Your task to perform on an android device: turn pop-ups on in chrome Image 0: 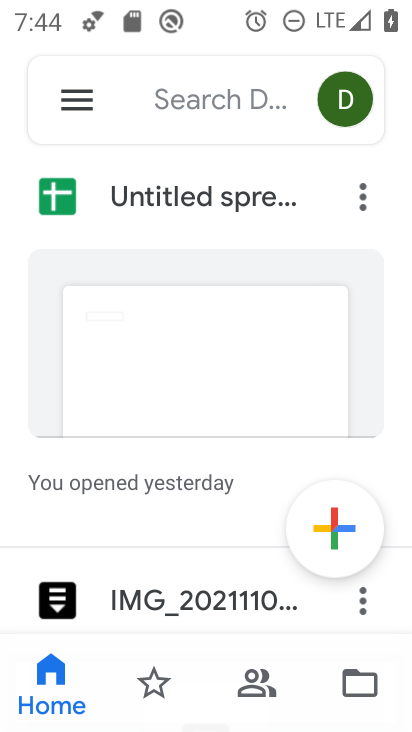
Step 0: press home button
Your task to perform on an android device: turn pop-ups on in chrome Image 1: 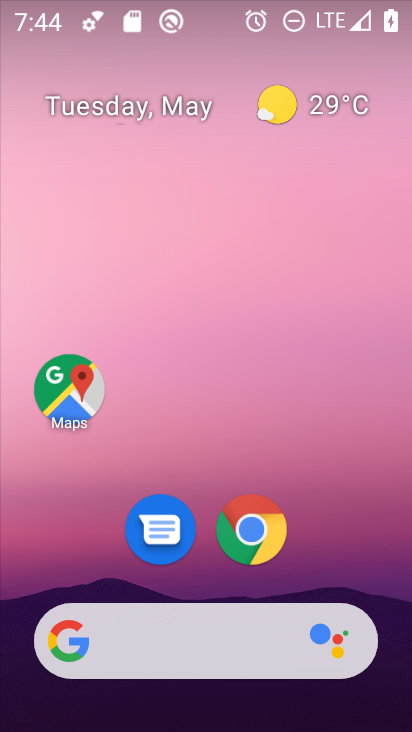
Step 1: click (254, 548)
Your task to perform on an android device: turn pop-ups on in chrome Image 2: 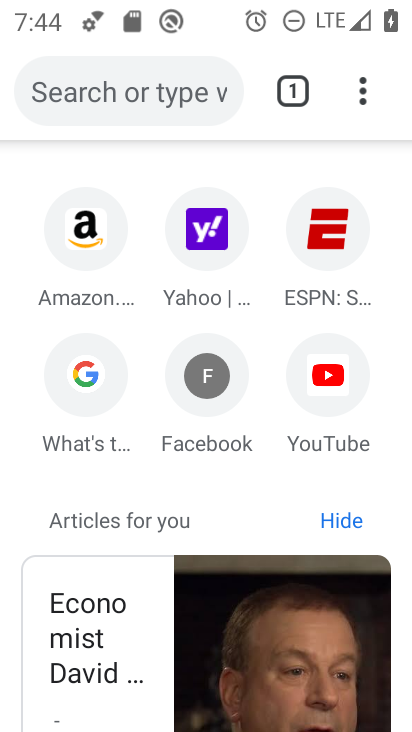
Step 2: click (364, 83)
Your task to perform on an android device: turn pop-ups on in chrome Image 3: 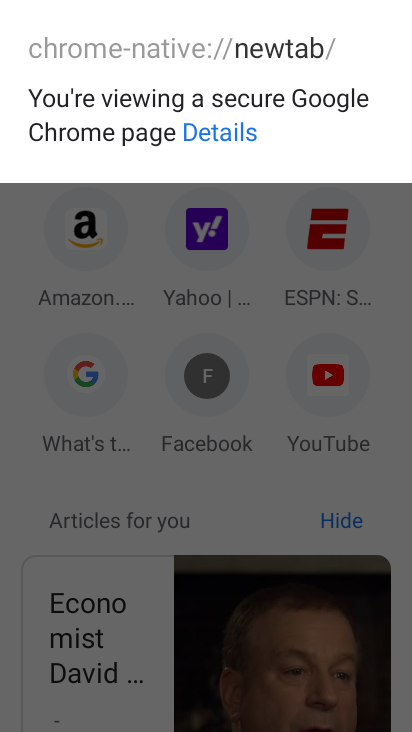
Step 3: press back button
Your task to perform on an android device: turn pop-ups on in chrome Image 4: 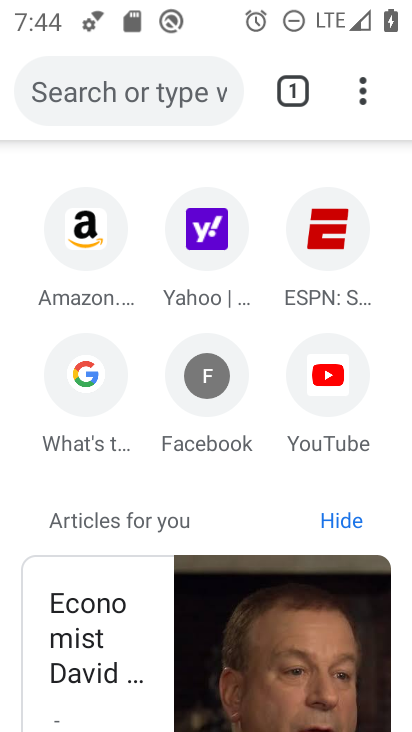
Step 4: click (356, 81)
Your task to perform on an android device: turn pop-ups on in chrome Image 5: 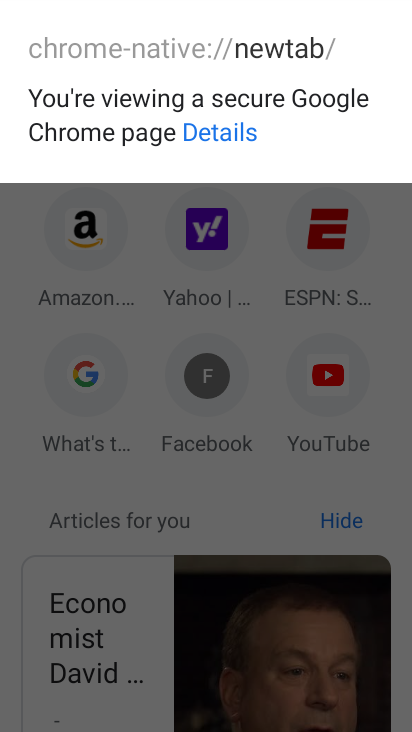
Step 5: press back button
Your task to perform on an android device: turn pop-ups on in chrome Image 6: 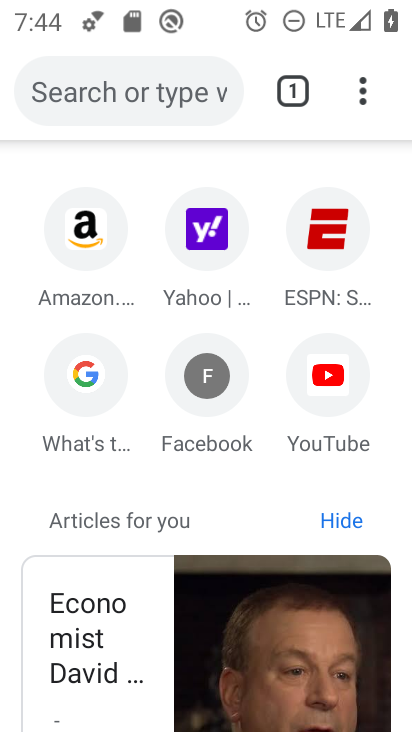
Step 6: click (353, 71)
Your task to perform on an android device: turn pop-ups on in chrome Image 7: 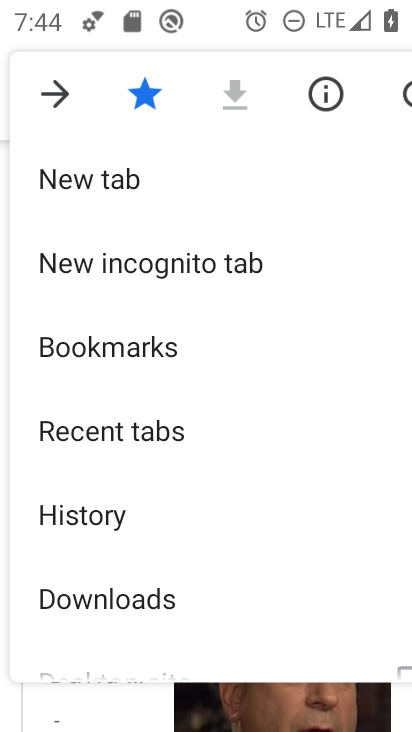
Step 7: drag from (125, 609) to (118, 213)
Your task to perform on an android device: turn pop-ups on in chrome Image 8: 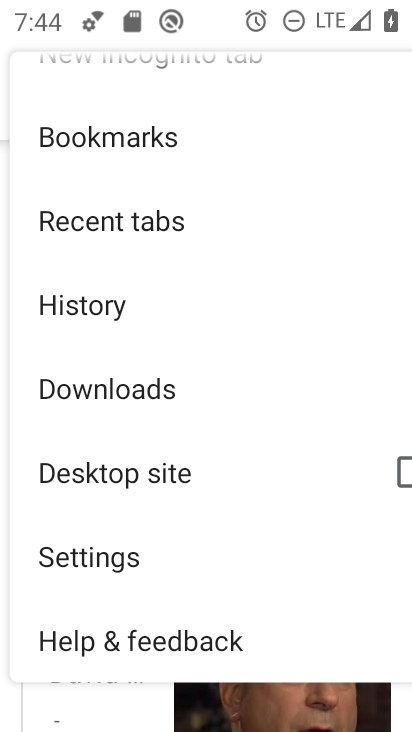
Step 8: click (97, 576)
Your task to perform on an android device: turn pop-ups on in chrome Image 9: 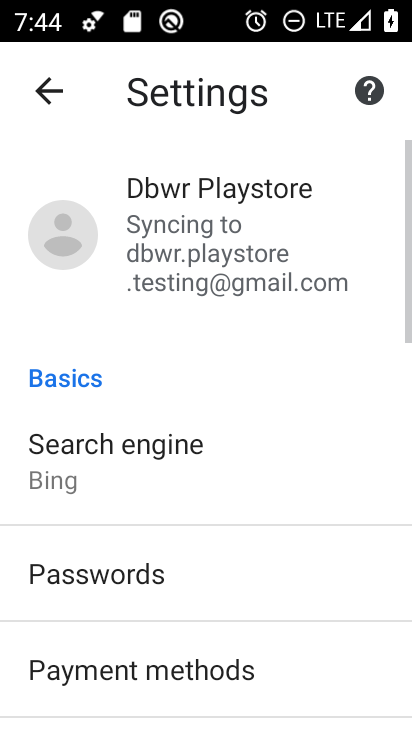
Step 9: drag from (127, 710) to (207, 132)
Your task to perform on an android device: turn pop-ups on in chrome Image 10: 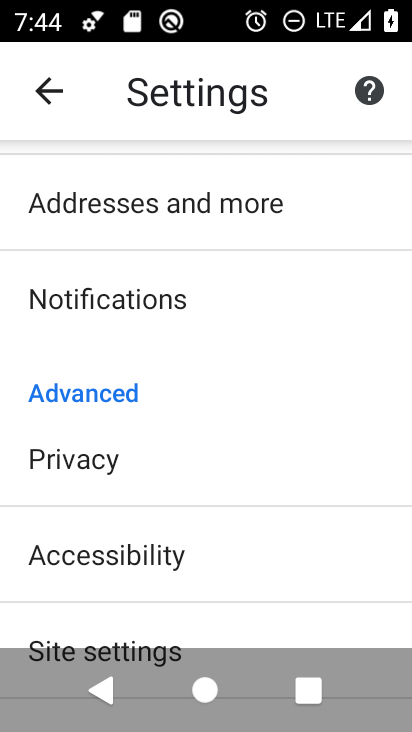
Step 10: click (160, 611)
Your task to perform on an android device: turn pop-ups on in chrome Image 11: 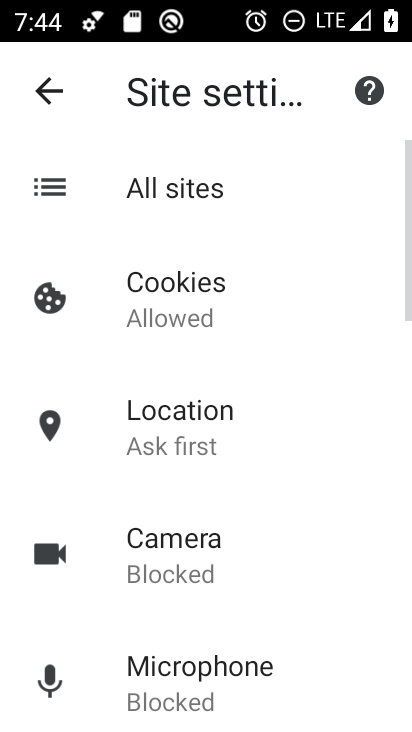
Step 11: drag from (188, 726) to (231, 208)
Your task to perform on an android device: turn pop-ups on in chrome Image 12: 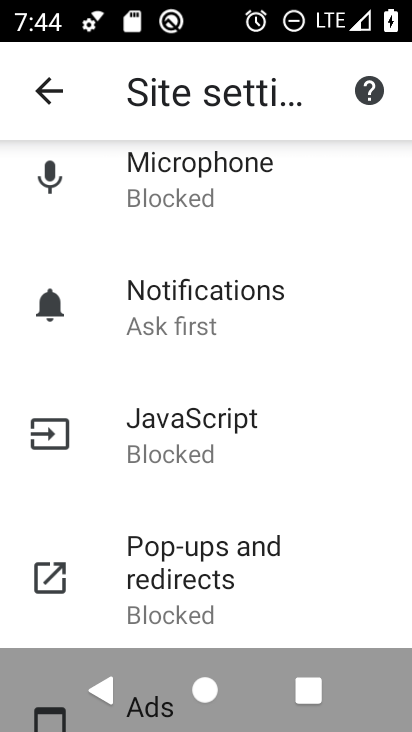
Step 12: click (218, 584)
Your task to perform on an android device: turn pop-ups on in chrome Image 13: 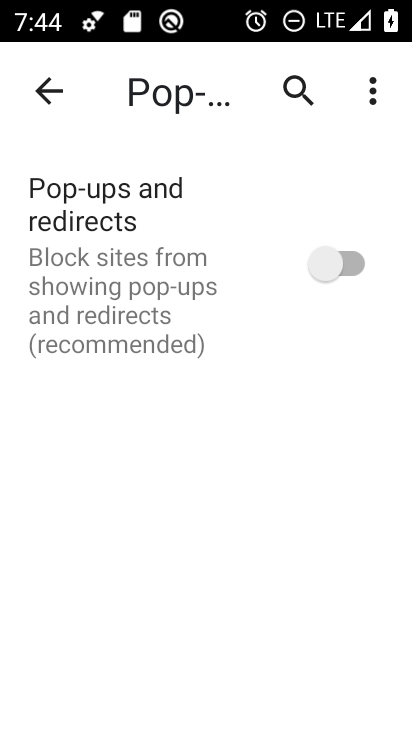
Step 13: click (371, 290)
Your task to perform on an android device: turn pop-ups on in chrome Image 14: 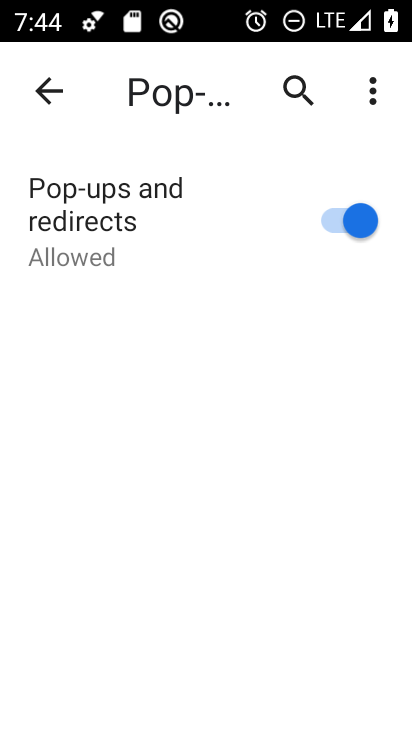
Step 14: task complete